Your task to perform on an android device: Clear the cart on amazon. Search for "alienware aurora" on amazon, select the first entry, add it to the cart, then select checkout. Image 0: 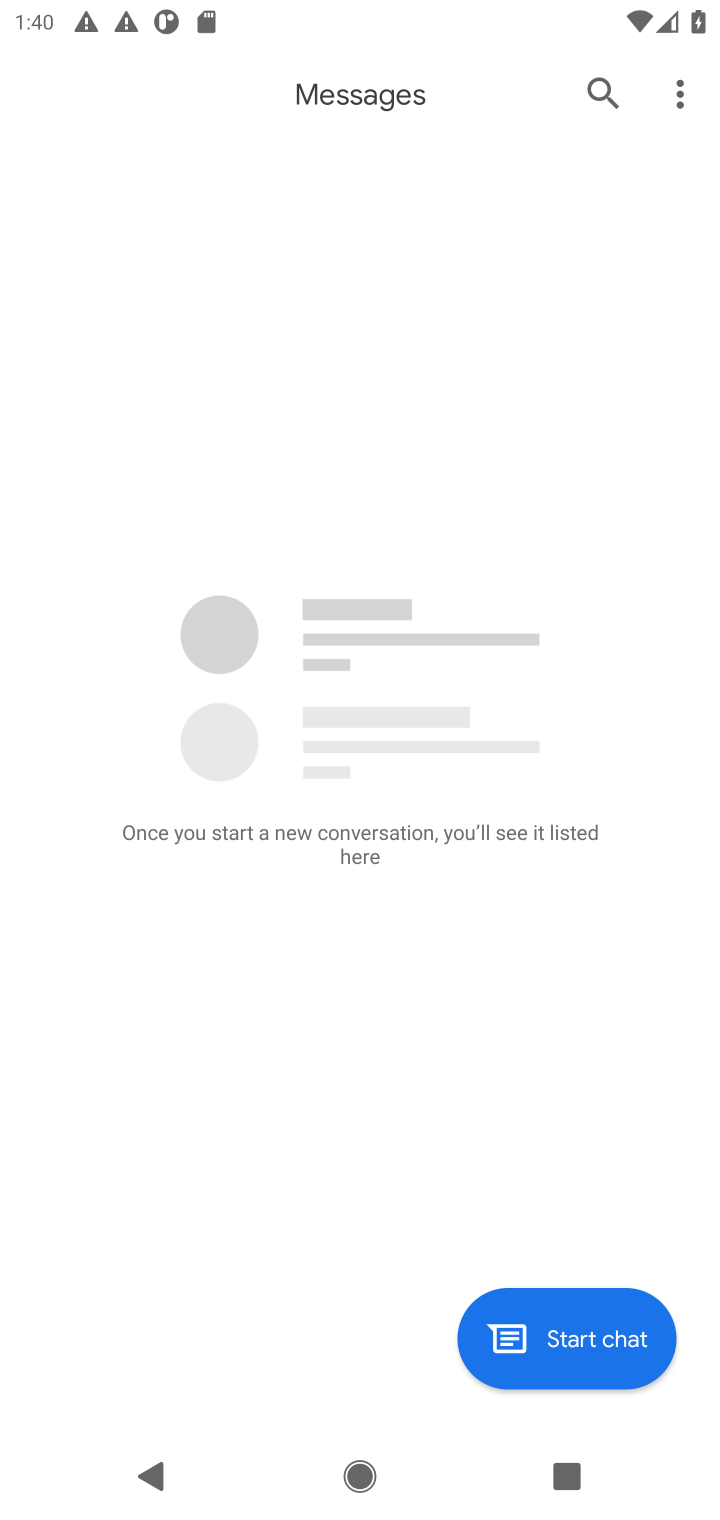
Step 0: press home button
Your task to perform on an android device: Clear the cart on amazon. Search for "alienware aurora" on amazon, select the first entry, add it to the cart, then select checkout. Image 1: 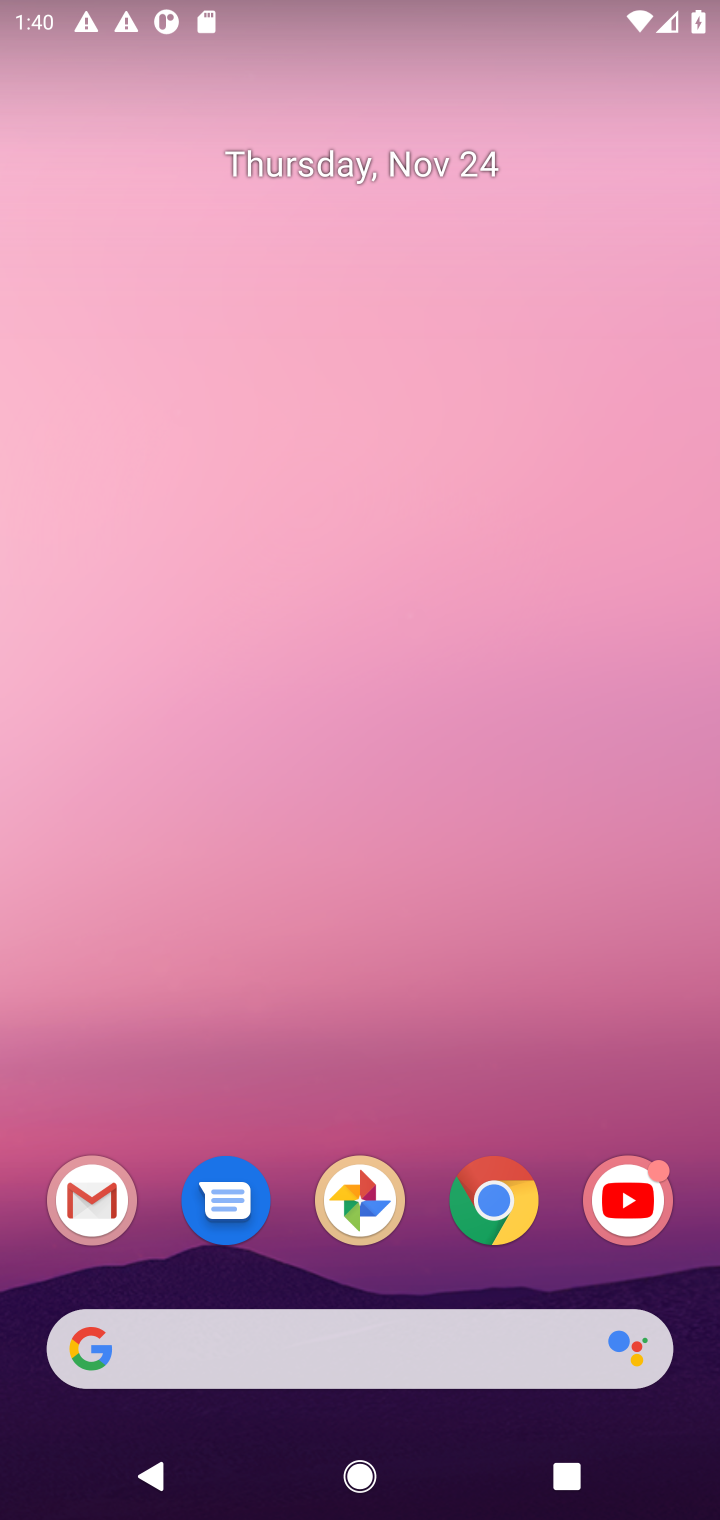
Step 1: click (373, 1369)
Your task to perform on an android device: Clear the cart on amazon. Search for "alienware aurora" on amazon, select the first entry, add it to the cart, then select checkout. Image 2: 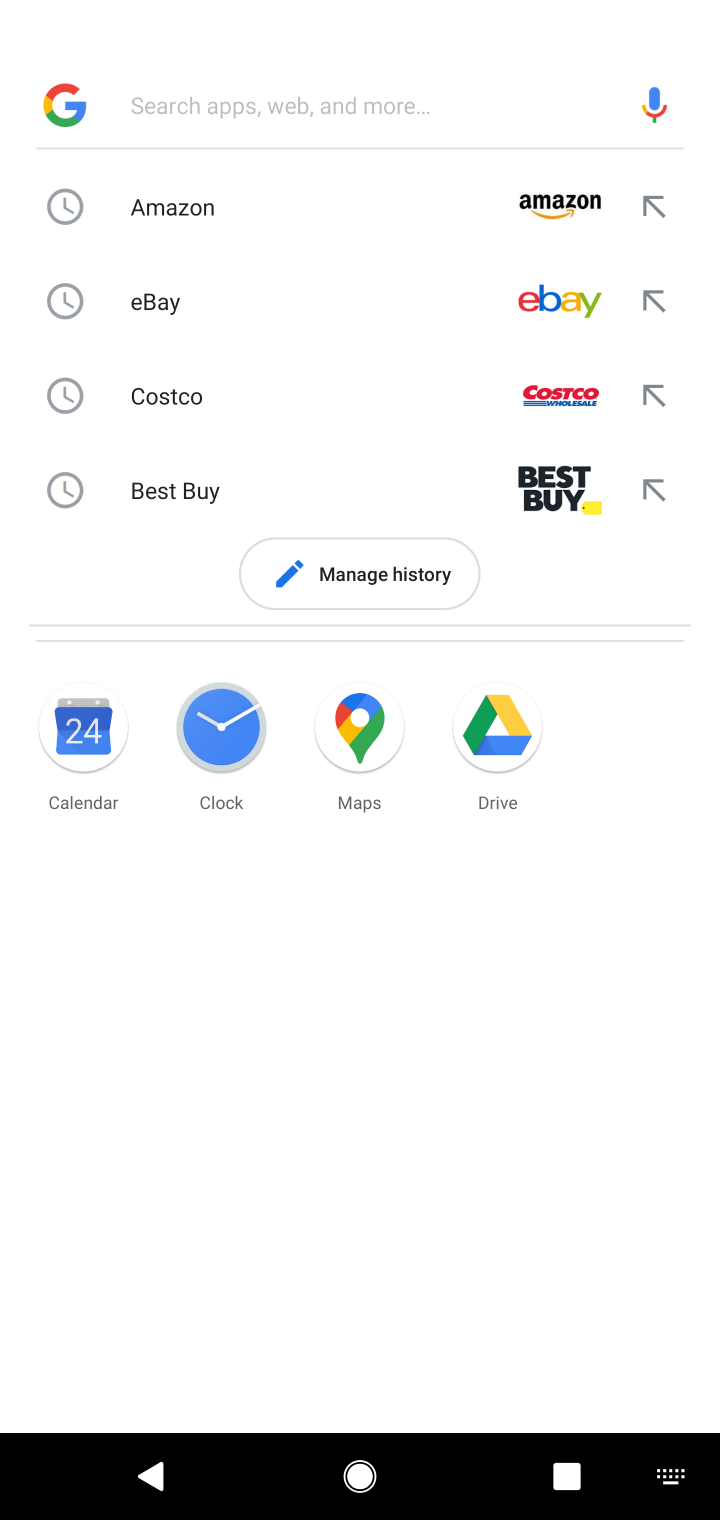
Step 2: task complete